Your task to perform on an android device: search for starred emails in the gmail app Image 0: 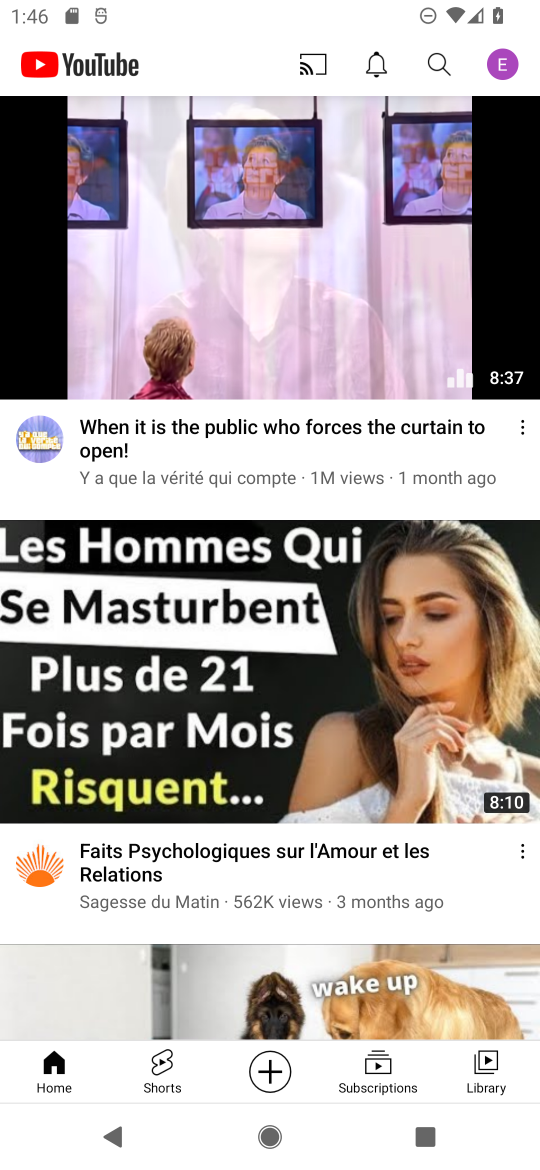
Step 0: press back button
Your task to perform on an android device: search for starred emails in the gmail app Image 1: 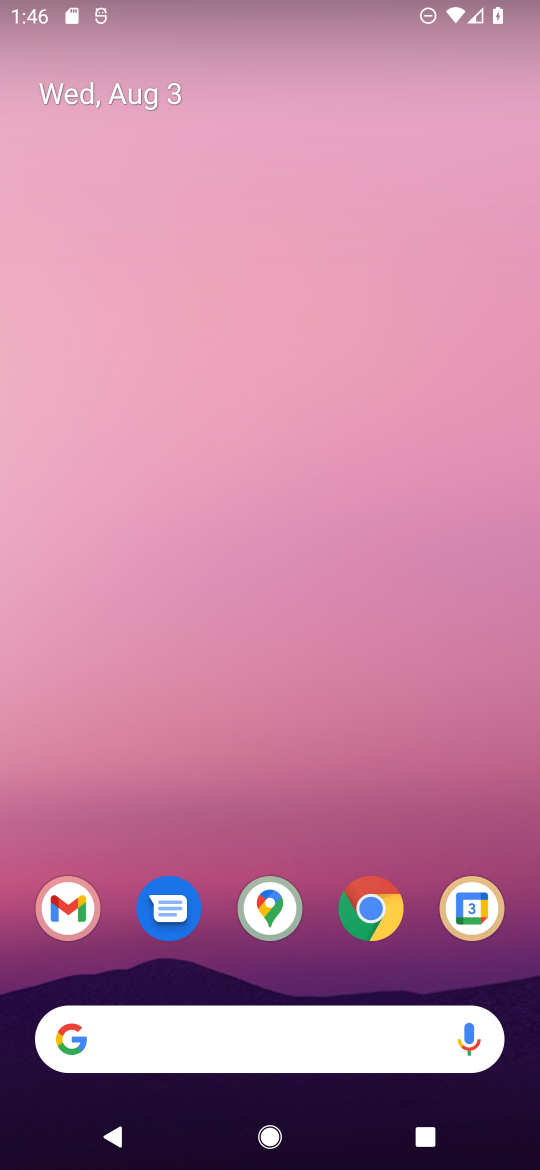
Step 1: click (74, 892)
Your task to perform on an android device: search for starred emails in the gmail app Image 2: 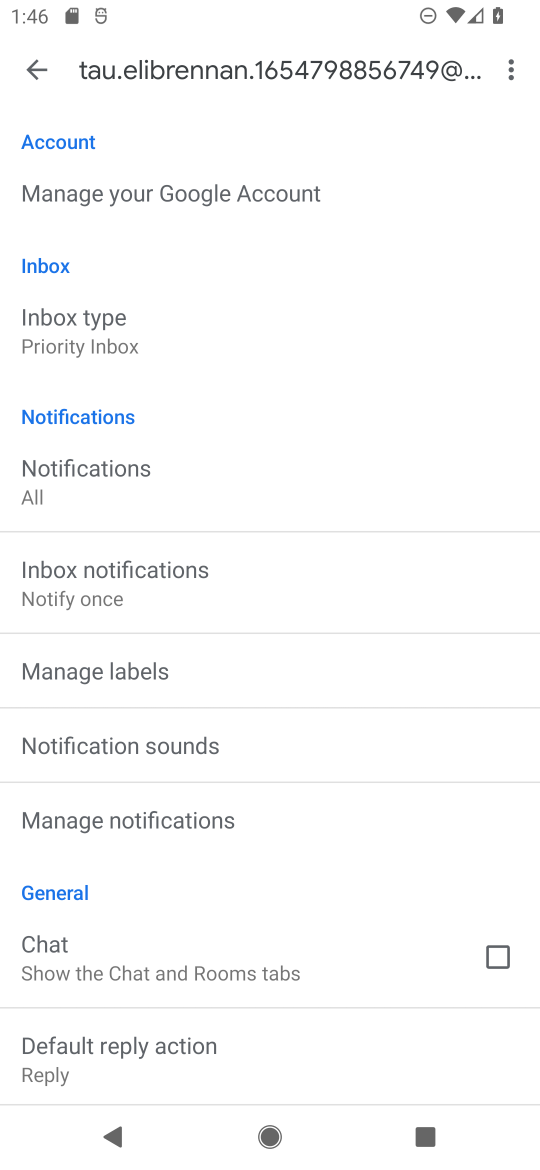
Step 2: click (31, 80)
Your task to perform on an android device: search for starred emails in the gmail app Image 3: 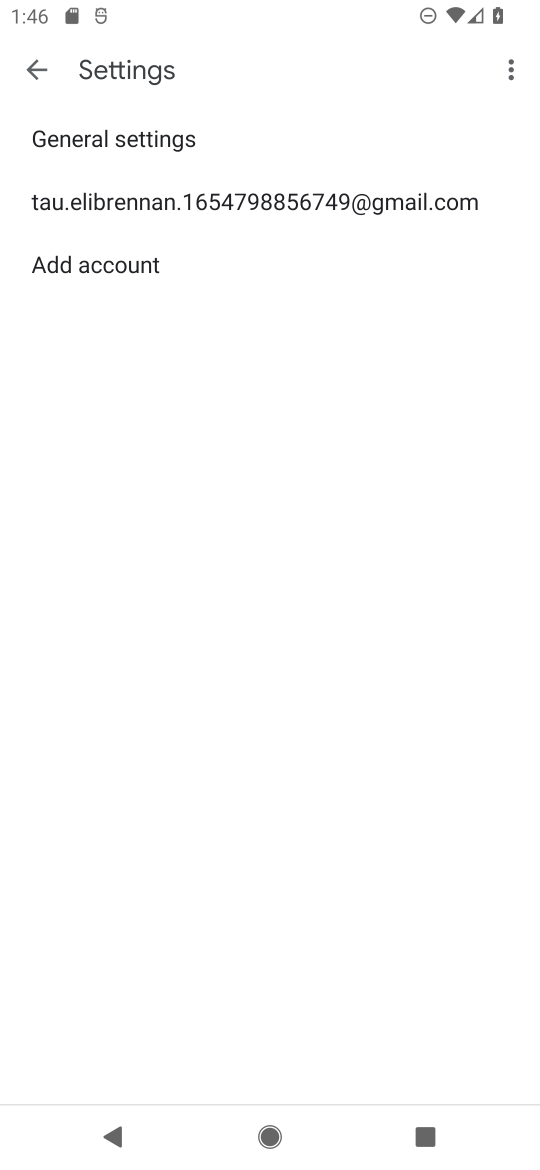
Step 3: click (31, 80)
Your task to perform on an android device: search for starred emails in the gmail app Image 4: 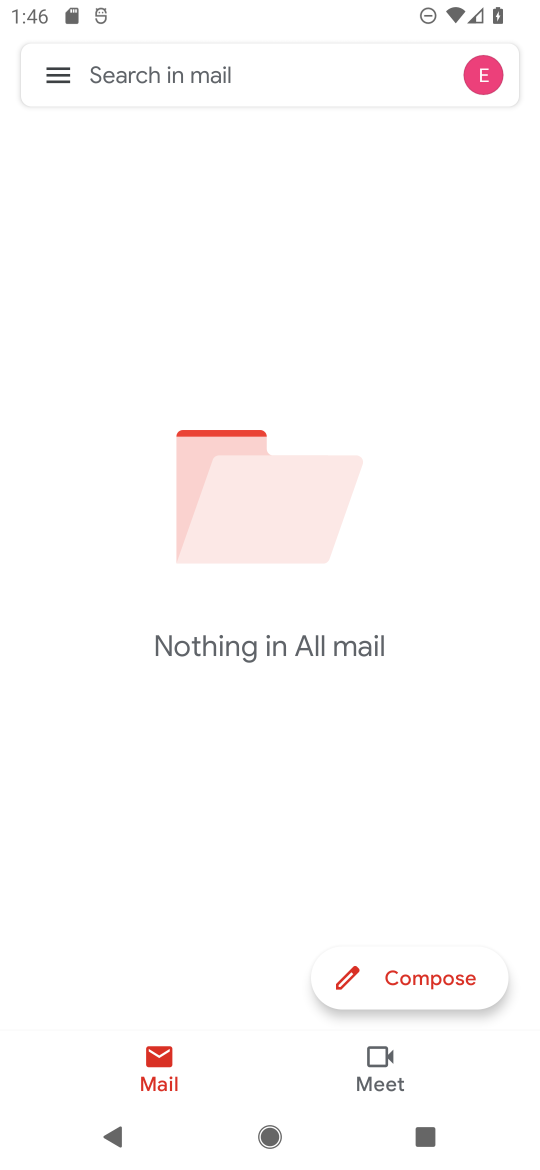
Step 4: click (56, 58)
Your task to perform on an android device: search for starred emails in the gmail app Image 5: 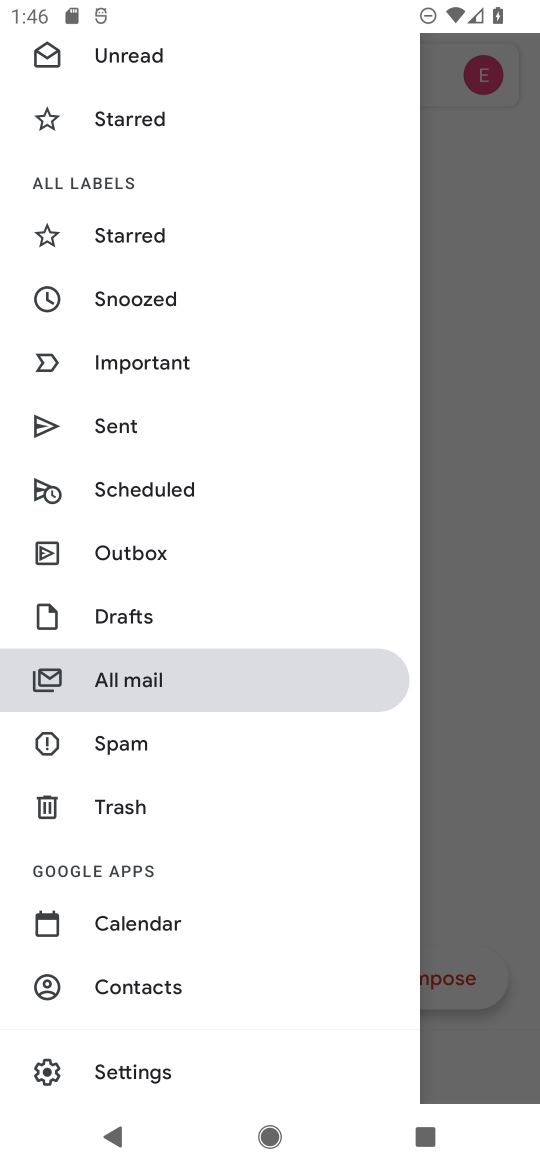
Step 5: click (132, 241)
Your task to perform on an android device: search for starred emails in the gmail app Image 6: 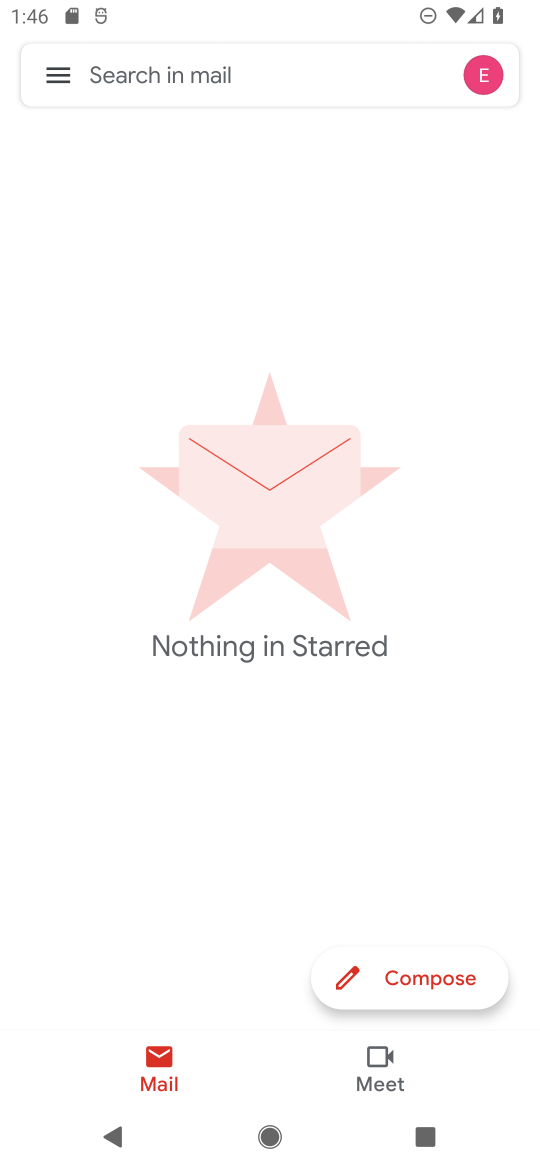
Step 6: task complete